Your task to perform on an android device: Do I have any events today? Image 0: 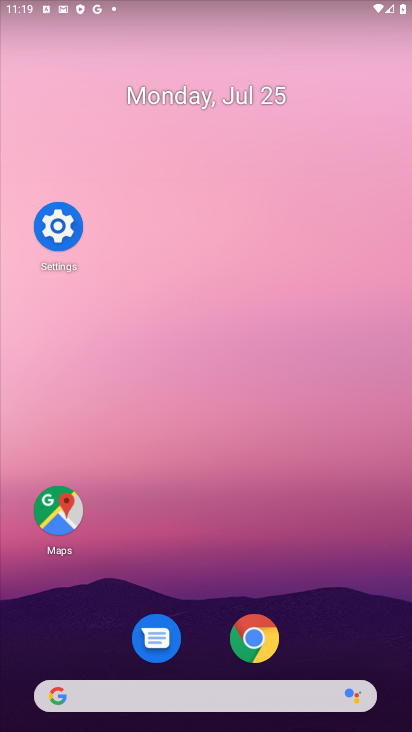
Step 0: drag from (308, 637) to (308, 234)
Your task to perform on an android device: Do I have any events today? Image 1: 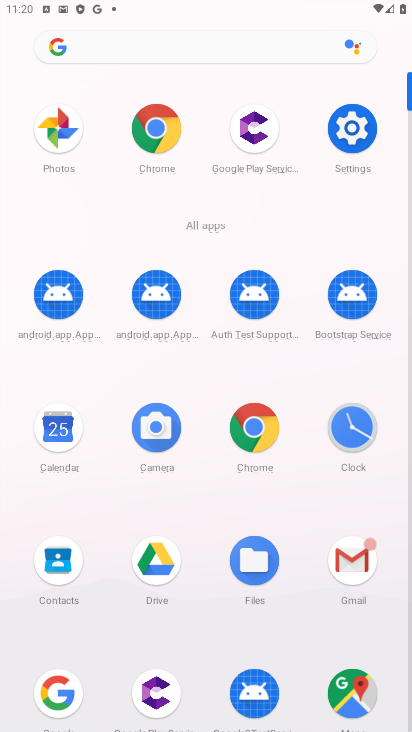
Step 1: click (57, 437)
Your task to perform on an android device: Do I have any events today? Image 2: 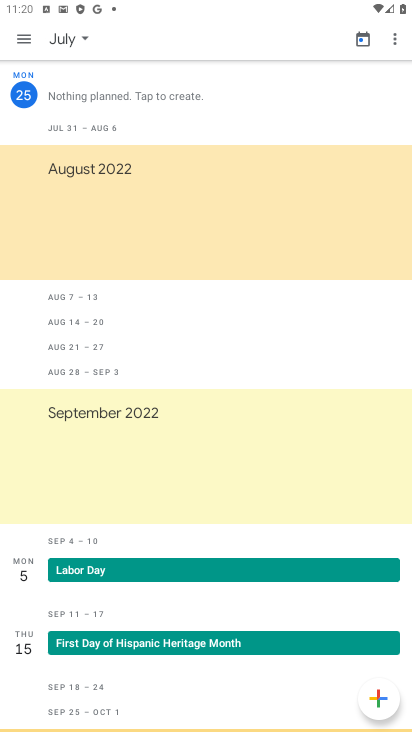
Step 2: click (21, 91)
Your task to perform on an android device: Do I have any events today? Image 3: 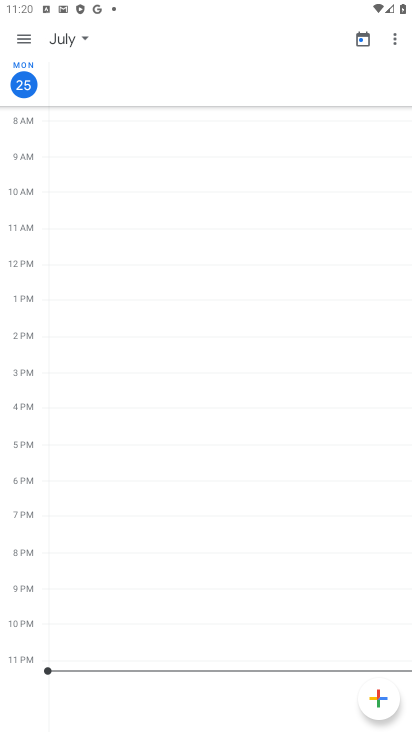
Step 3: task complete